Your task to perform on an android device: Go to calendar. Show me events next week Image 0: 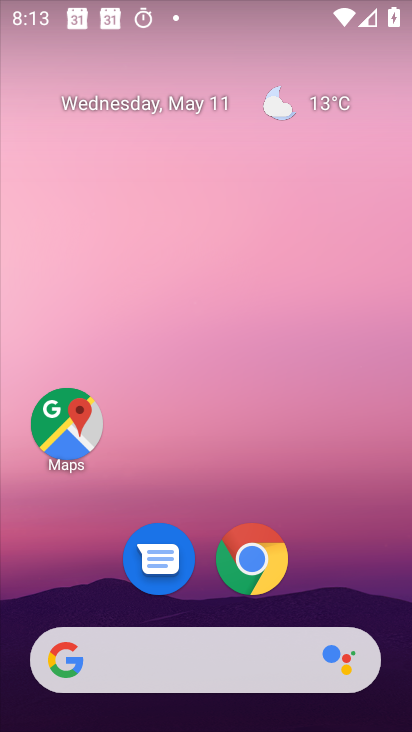
Step 0: drag from (321, 584) to (294, 149)
Your task to perform on an android device: Go to calendar. Show me events next week Image 1: 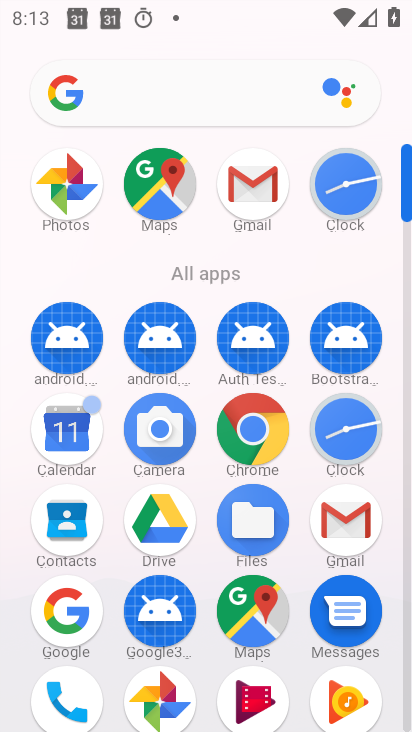
Step 1: click (61, 439)
Your task to perform on an android device: Go to calendar. Show me events next week Image 2: 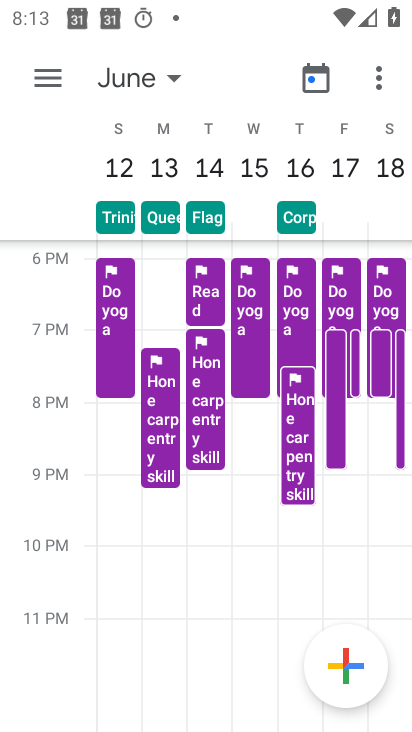
Step 2: click (126, 73)
Your task to perform on an android device: Go to calendar. Show me events next week Image 3: 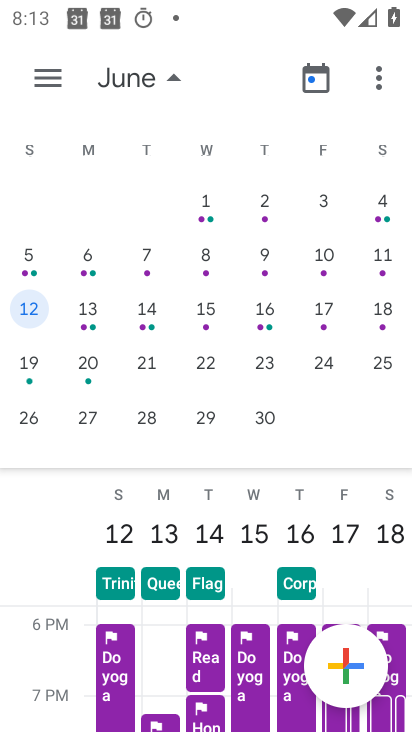
Step 3: drag from (75, 360) to (408, 316)
Your task to perform on an android device: Go to calendar. Show me events next week Image 4: 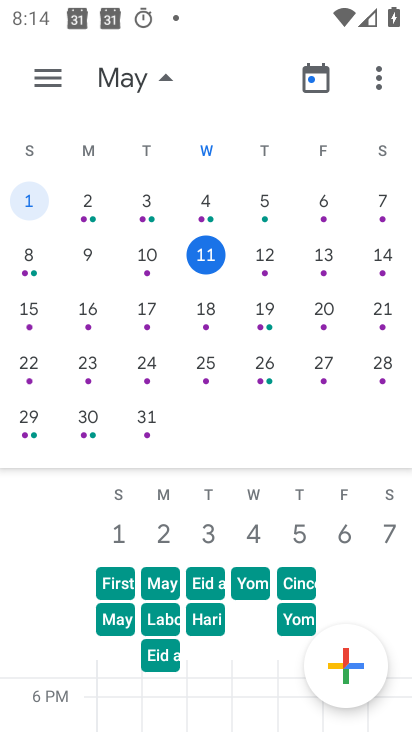
Step 4: click (44, 73)
Your task to perform on an android device: Go to calendar. Show me events next week Image 5: 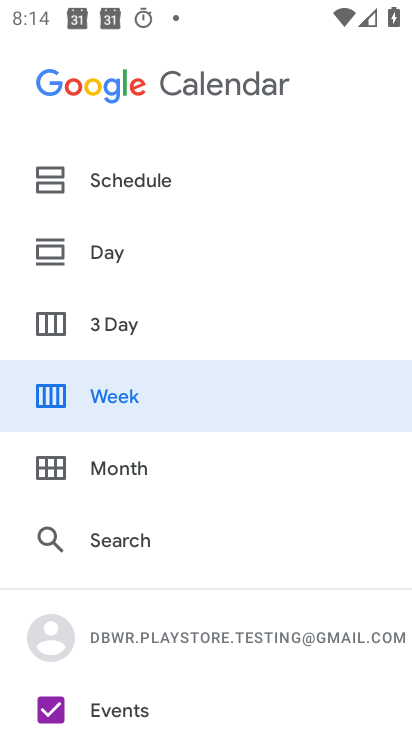
Step 5: drag from (141, 694) to (175, 177)
Your task to perform on an android device: Go to calendar. Show me events next week Image 6: 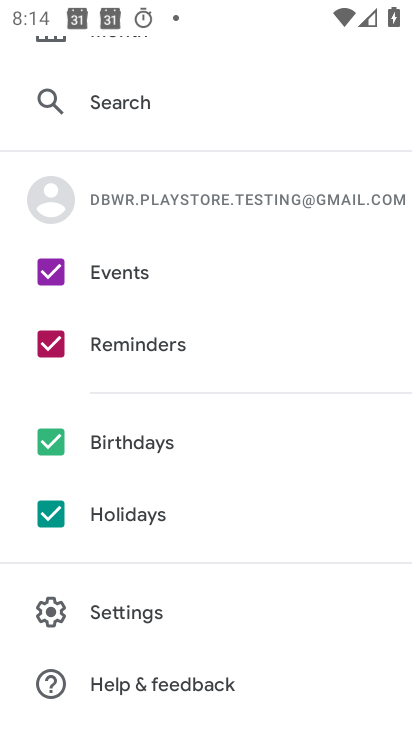
Step 6: click (49, 510)
Your task to perform on an android device: Go to calendar. Show me events next week Image 7: 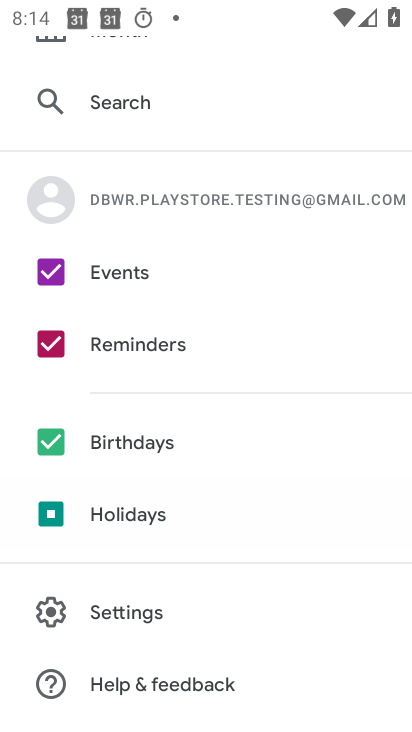
Step 7: click (46, 441)
Your task to perform on an android device: Go to calendar. Show me events next week Image 8: 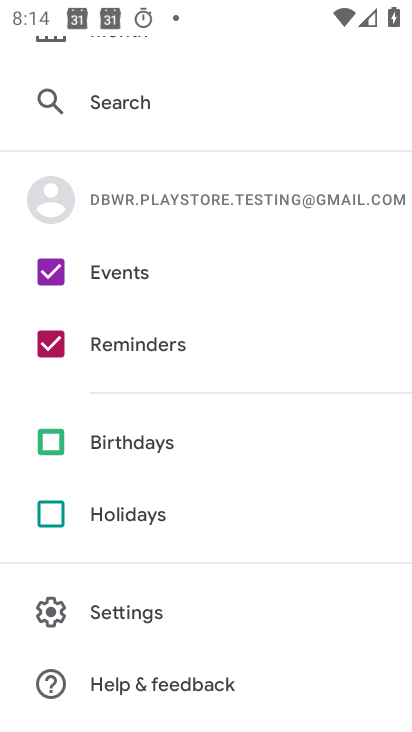
Step 8: click (57, 339)
Your task to perform on an android device: Go to calendar. Show me events next week Image 9: 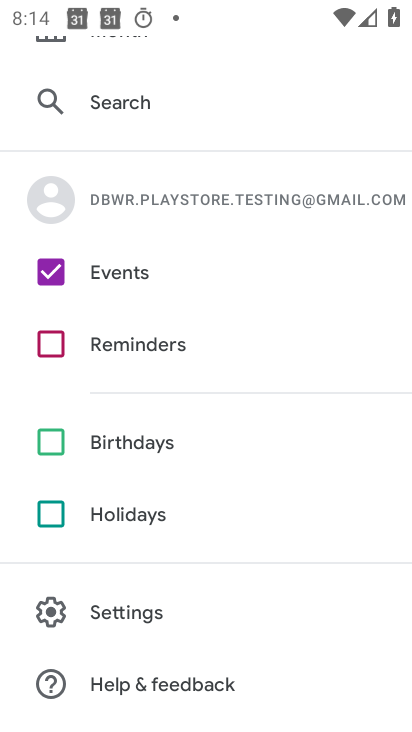
Step 9: drag from (364, 222) to (345, 593)
Your task to perform on an android device: Go to calendar. Show me events next week Image 10: 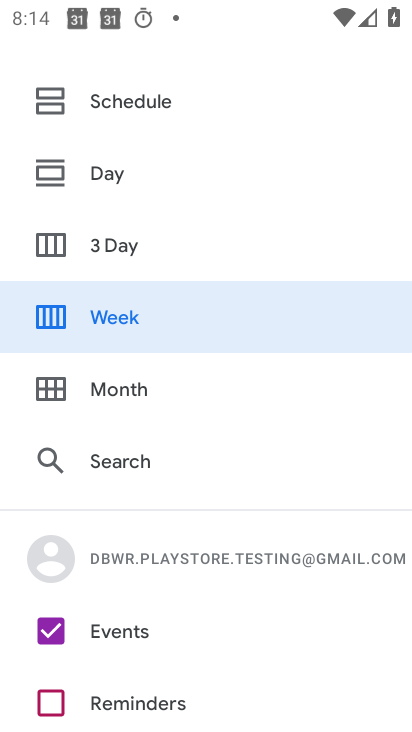
Step 10: click (197, 314)
Your task to perform on an android device: Go to calendar. Show me events next week Image 11: 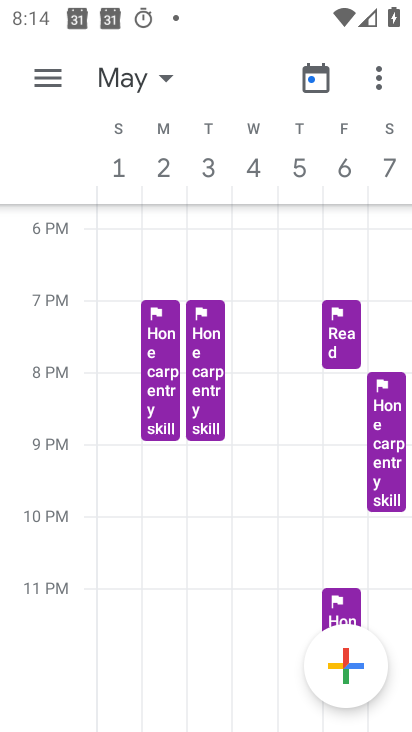
Step 11: click (162, 75)
Your task to perform on an android device: Go to calendar. Show me events next week Image 12: 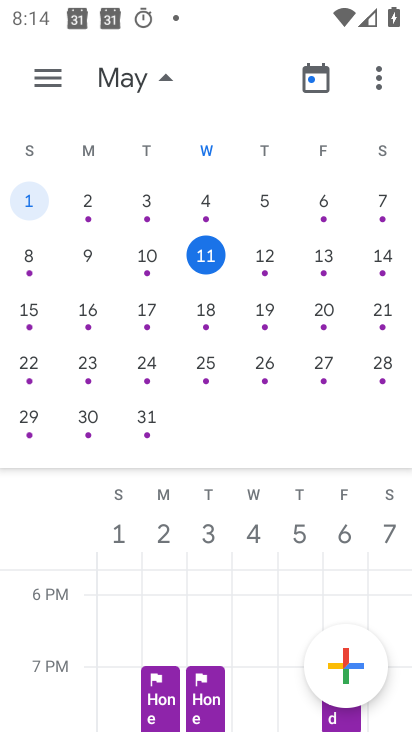
Step 12: click (144, 308)
Your task to perform on an android device: Go to calendar. Show me events next week Image 13: 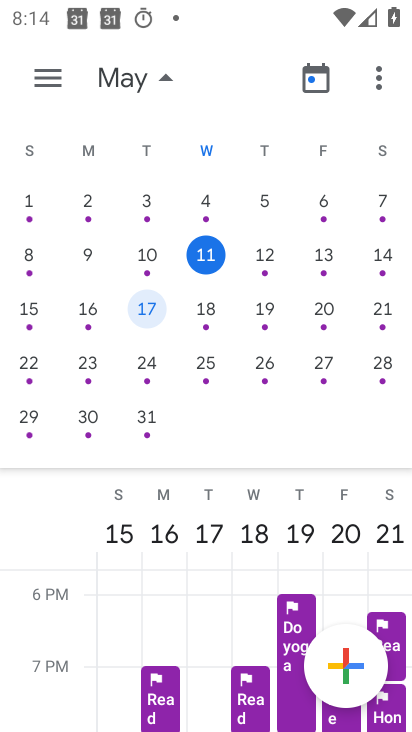
Step 13: task complete